Your task to perform on an android device: delete browsing data in the chrome app Image 0: 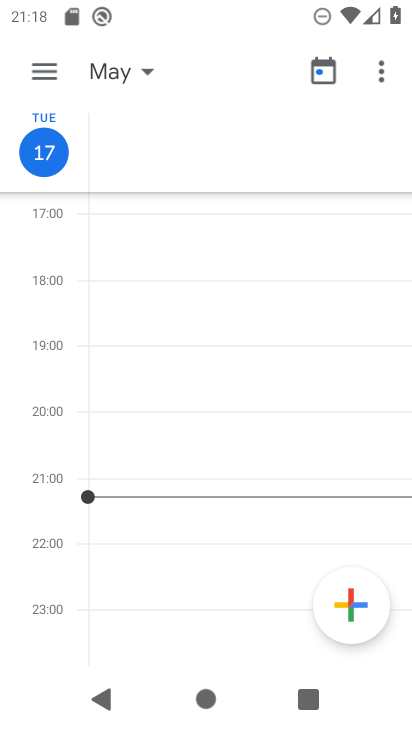
Step 0: press home button
Your task to perform on an android device: delete browsing data in the chrome app Image 1: 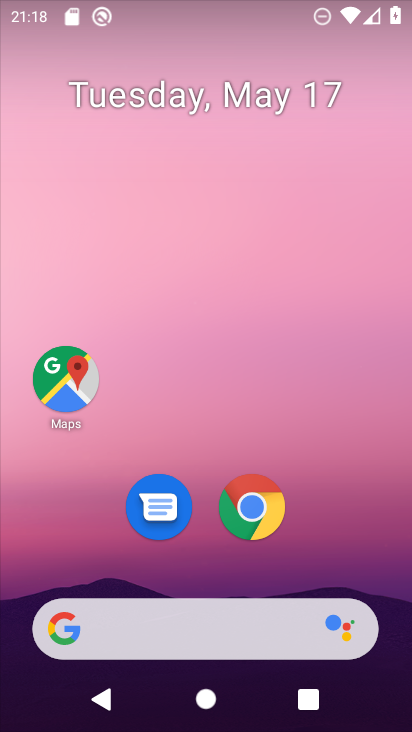
Step 1: click (256, 501)
Your task to perform on an android device: delete browsing data in the chrome app Image 2: 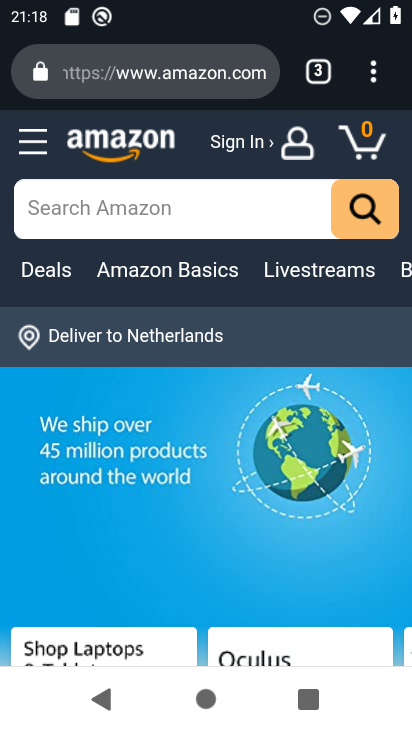
Step 2: click (375, 73)
Your task to perform on an android device: delete browsing data in the chrome app Image 3: 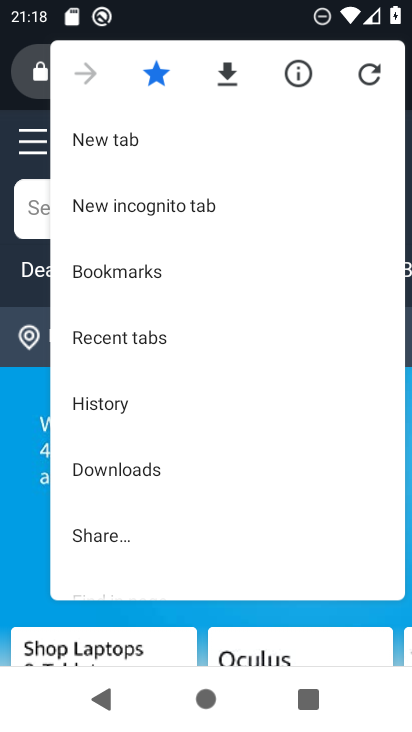
Step 3: drag from (192, 496) to (191, 80)
Your task to perform on an android device: delete browsing data in the chrome app Image 4: 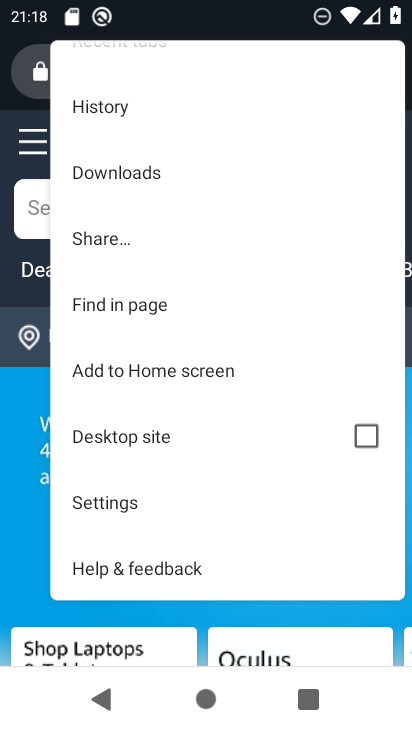
Step 4: click (106, 502)
Your task to perform on an android device: delete browsing data in the chrome app Image 5: 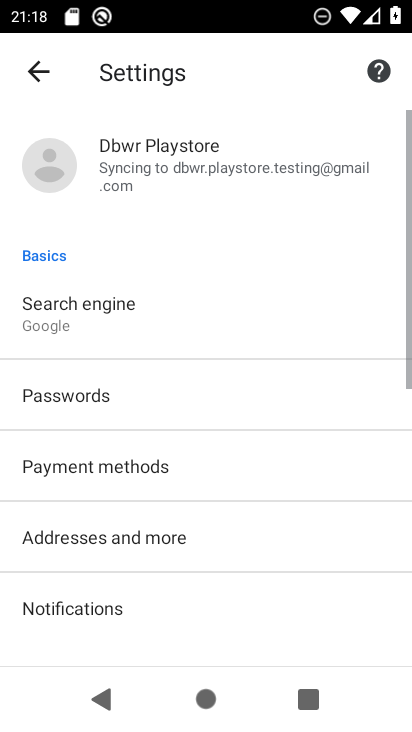
Step 5: drag from (106, 502) to (111, 197)
Your task to perform on an android device: delete browsing data in the chrome app Image 6: 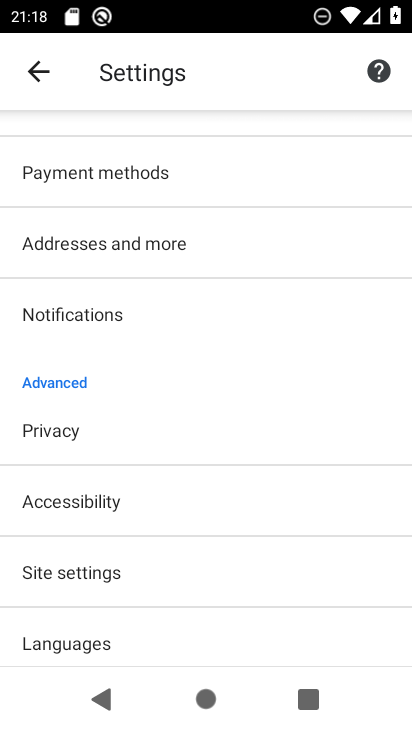
Step 6: click (68, 437)
Your task to perform on an android device: delete browsing data in the chrome app Image 7: 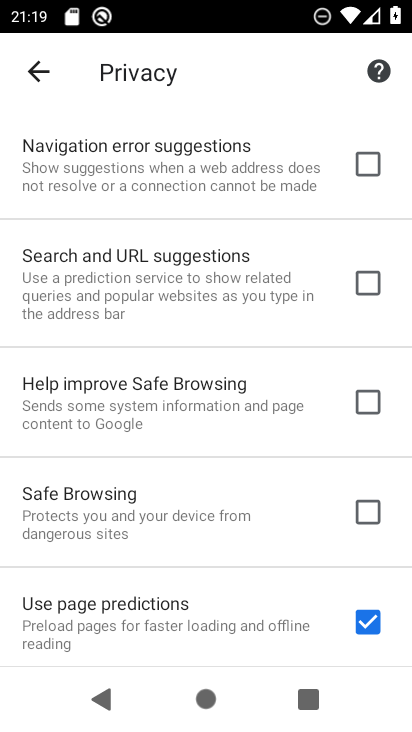
Step 7: task complete